Your task to perform on an android device: Open the map Image 0: 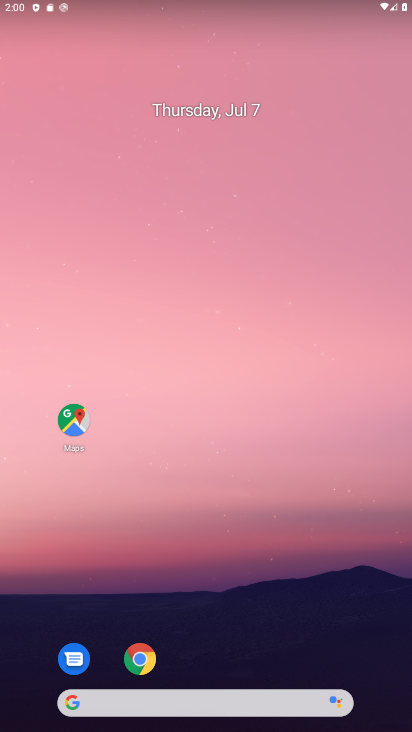
Step 0: click (72, 424)
Your task to perform on an android device: Open the map Image 1: 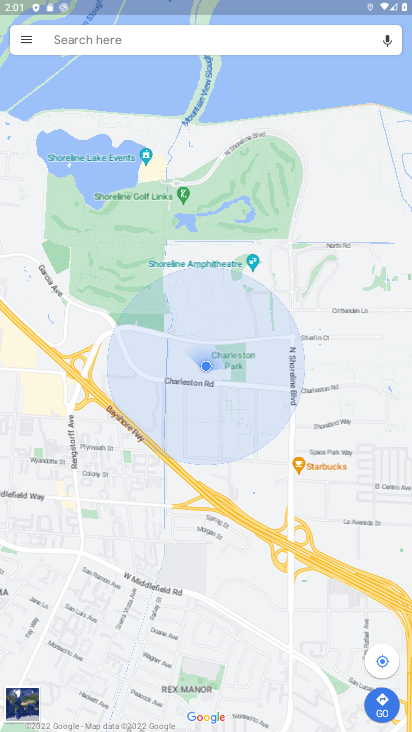
Step 1: task complete